Your task to perform on an android device: turn on the 24-hour format for clock Image 0: 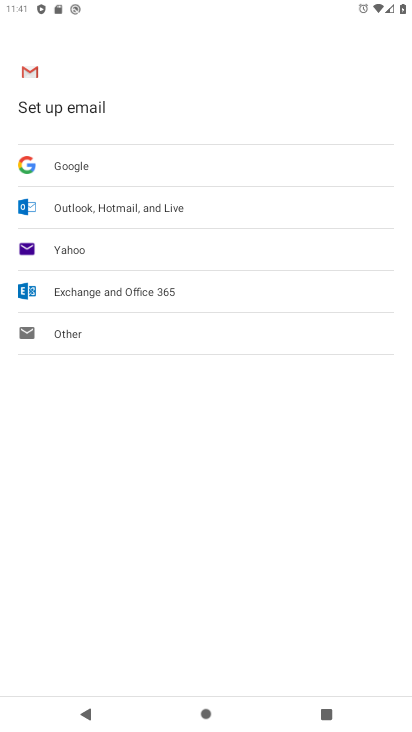
Step 0: press back button
Your task to perform on an android device: turn on the 24-hour format for clock Image 1: 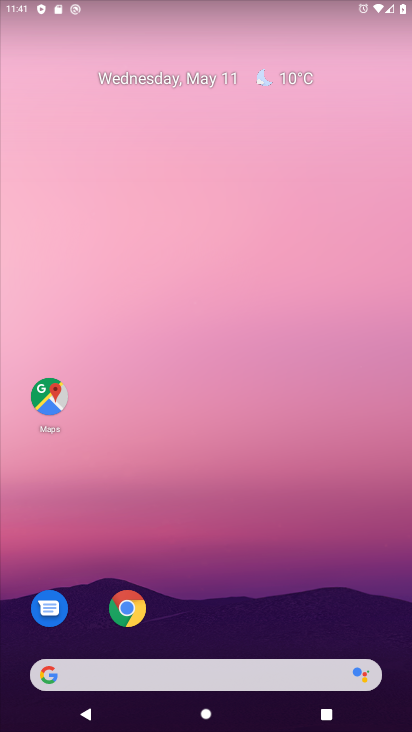
Step 1: drag from (235, 612) to (214, 80)
Your task to perform on an android device: turn on the 24-hour format for clock Image 2: 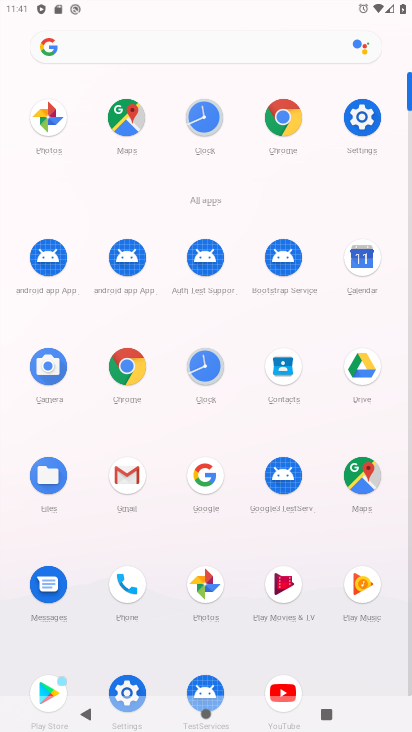
Step 2: click (206, 118)
Your task to perform on an android device: turn on the 24-hour format for clock Image 3: 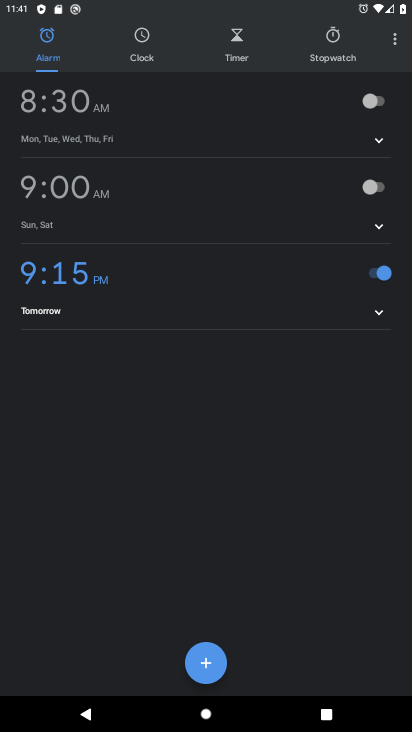
Step 3: click (396, 41)
Your task to perform on an android device: turn on the 24-hour format for clock Image 4: 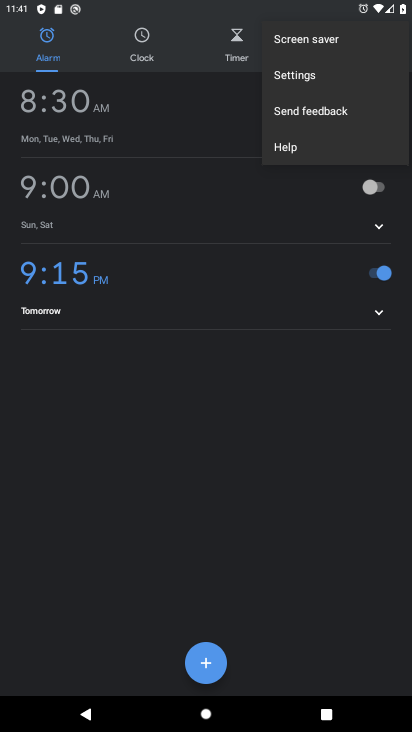
Step 4: click (305, 75)
Your task to perform on an android device: turn on the 24-hour format for clock Image 5: 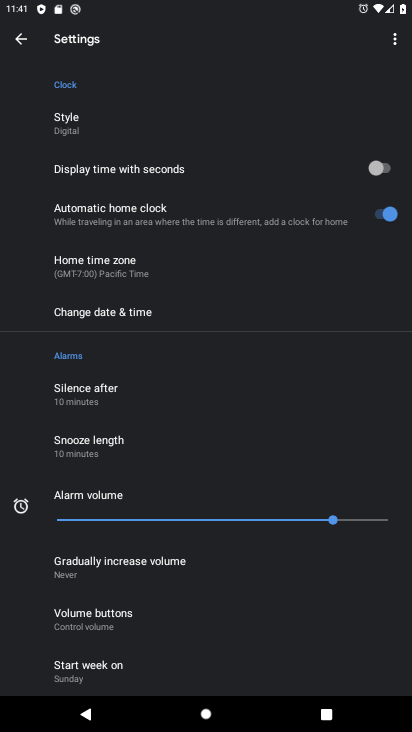
Step 5: click (112, 314)
Your task to perform on an android device: turn on the 24-hour format for clock Image 6: 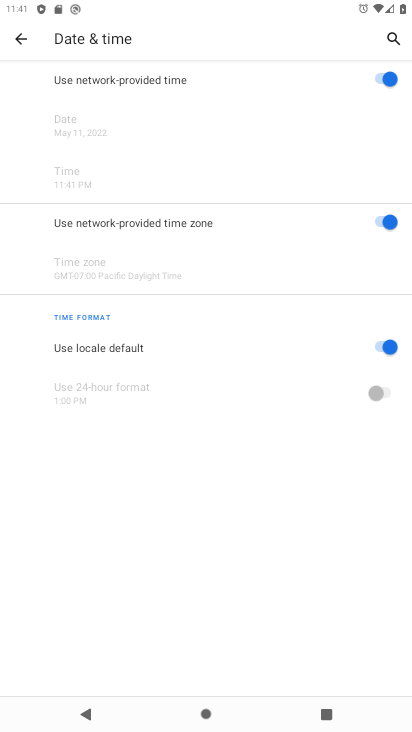
Step 6: click (387, 350)
Your task to perform on an android device: turn on the 24-hour format for clock Image 7: 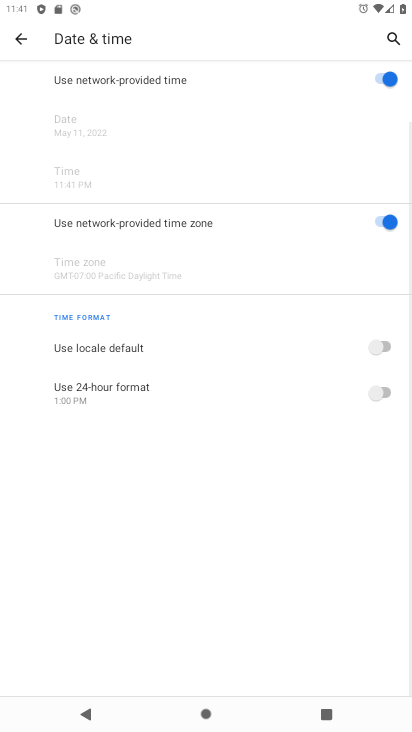
Step 7: click (369, 393)
Your task to perform on an android device: turn on the 24-hour format for clock Image 8: 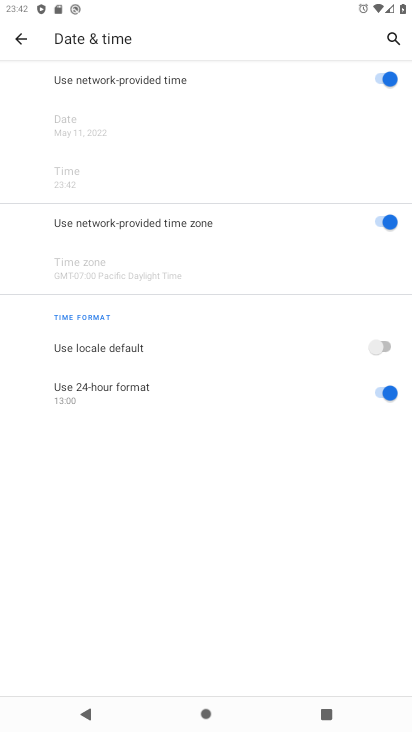
Step 8: task complete